Your task to perform on an android device: turn off notifications in google photos Image 0: 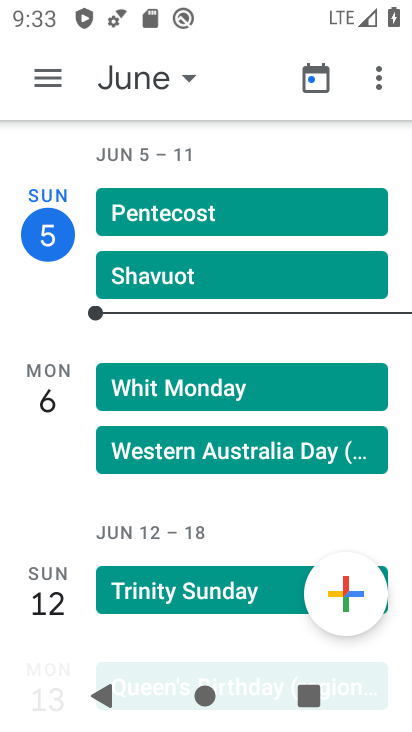
Step 0: press home button
Your task to perform on an android device: turn off notifications in google photos Image 1: 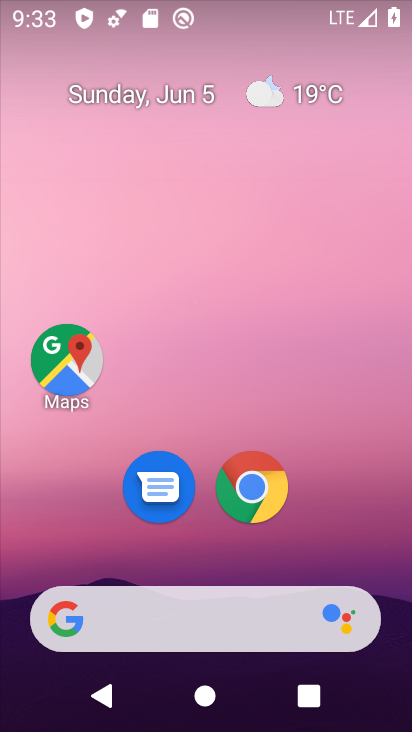
Step 1: drag from (47, 590) to (151, 123)
Your task to perform on an android device: turn off notifications in google photos Image 2: 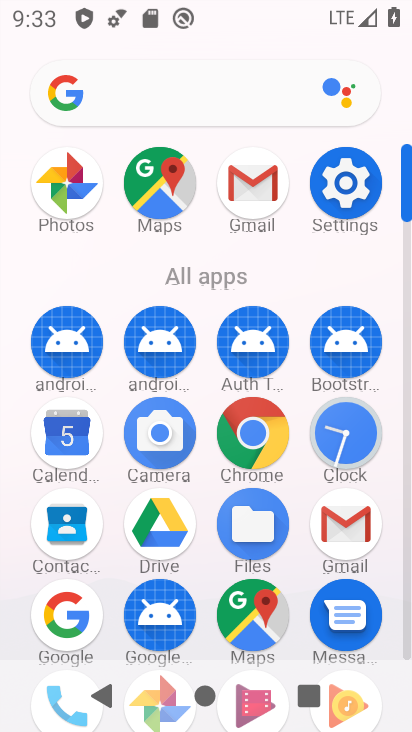
Step 2: drag from (190, 544) to (257, 276)
Your task to perform on an android device: turn off notifications in google photos Image 3: 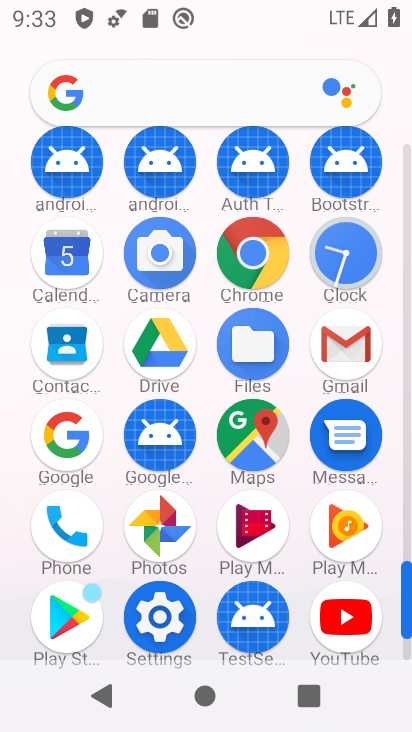
Step 3: click (161, 524)
Your task to perform on an android device: turn off notifications in google photos Image 4: 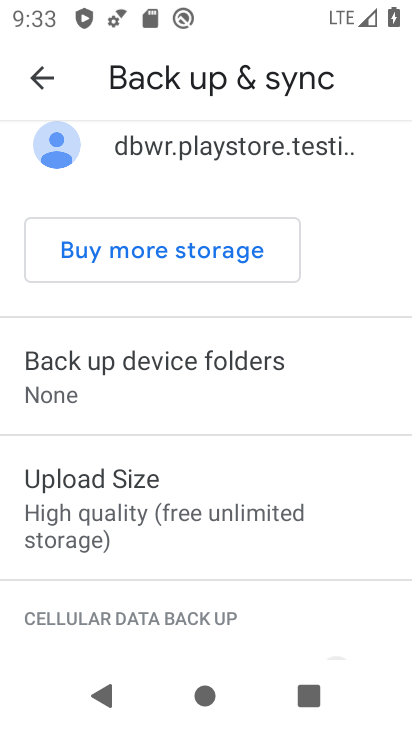
Step 4: click (64, 100)
Your task to perform on an android device: turn off notifications in google photos Image 5: 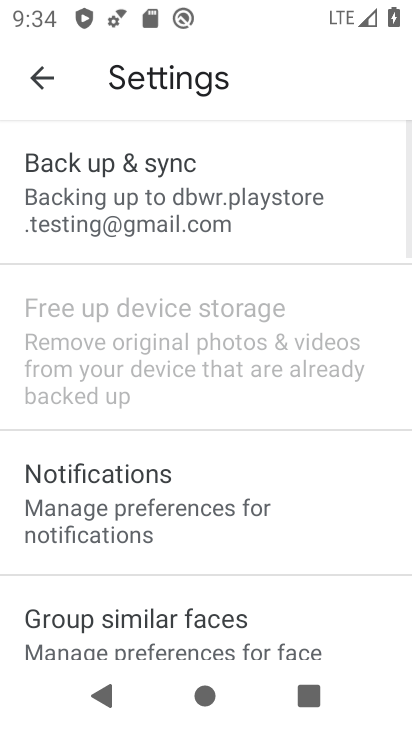
Step 5: click (148, 524)
Your task to perform on an android device: turn off notifications in google photos Image 6: 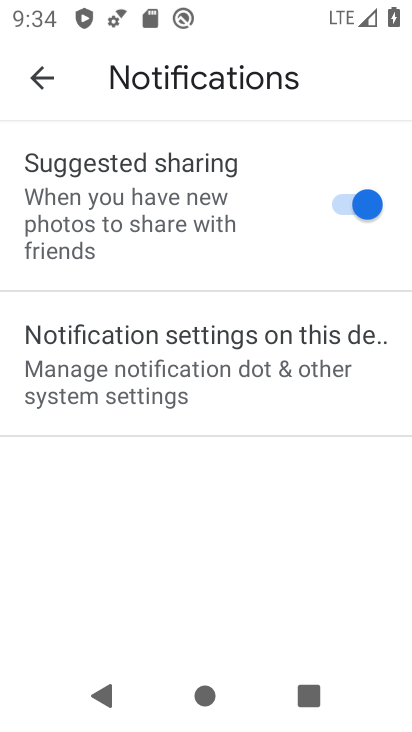
Step 6: click (236, 383)
Your task to perform on an android device: turn off notifications in google photos Image 7: 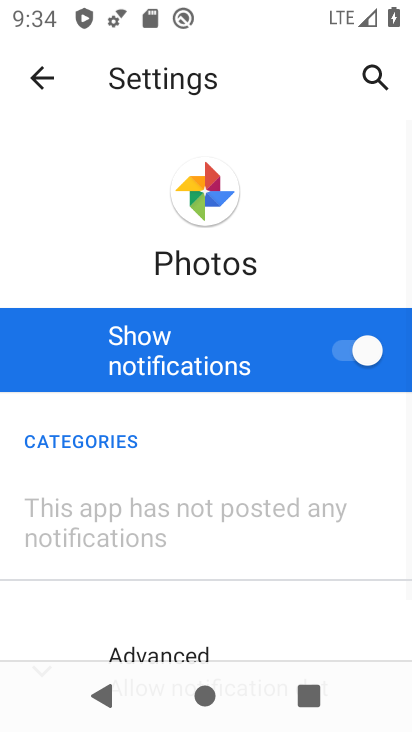
Step 7: click (352, 346)
Your task to perform on an android device: turn off notifications in google photos Image 8: 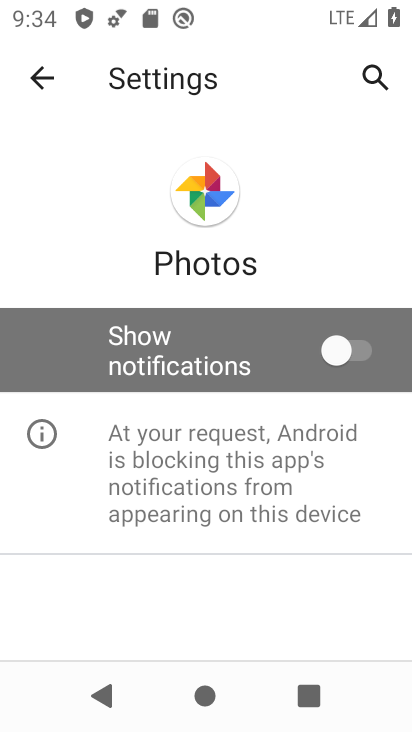
Step 8: task complete